Your task to perform on an android device: Show me productivity apps on the Play Store Image 0: 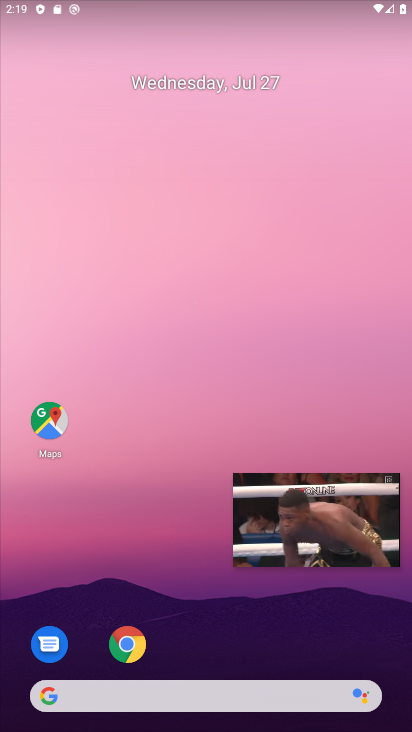
Step 0: click (355, 509)
Your task to perform on an android device: Show me productivity apps on the Play Store Image 1: 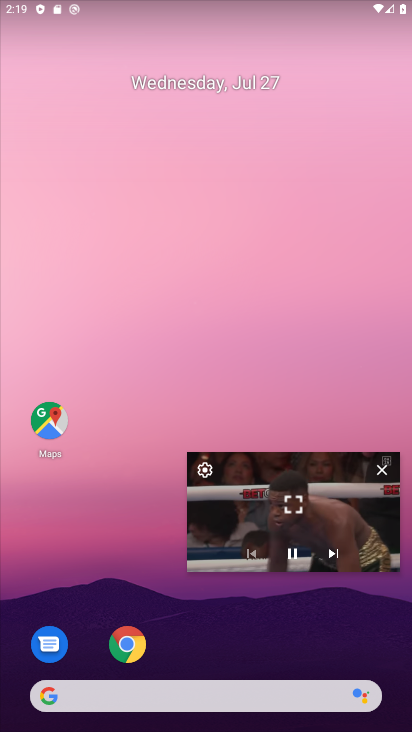
Step 1: click (387, 467)
Your task to perform on an android device: Show me productivity apps on the Play Store Image 2: 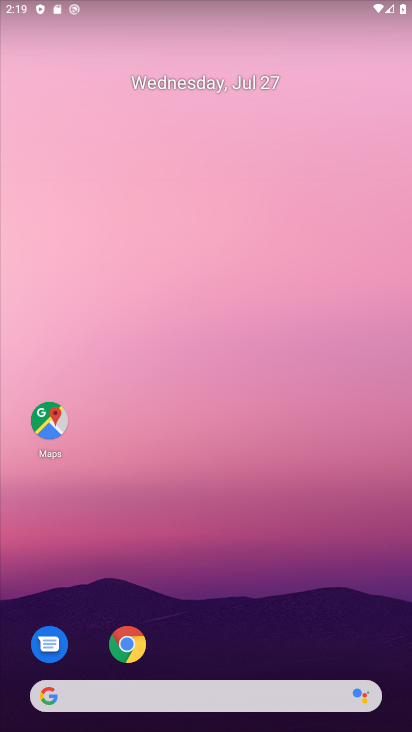
Step 2: drag from (190, 552) to (253, 5)
Your task to perform on an android device: Show me productivity apps on the Play Store Image 3: 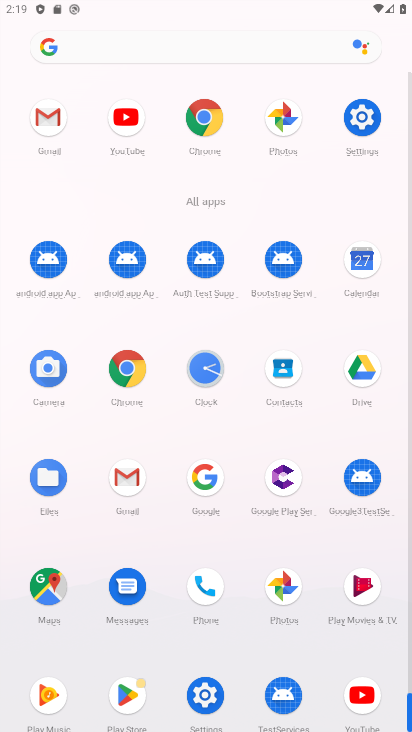
Step 3: click (124, 687)
Your task to perform on an android device: Show me productivity apps on the Play Store Image 4: 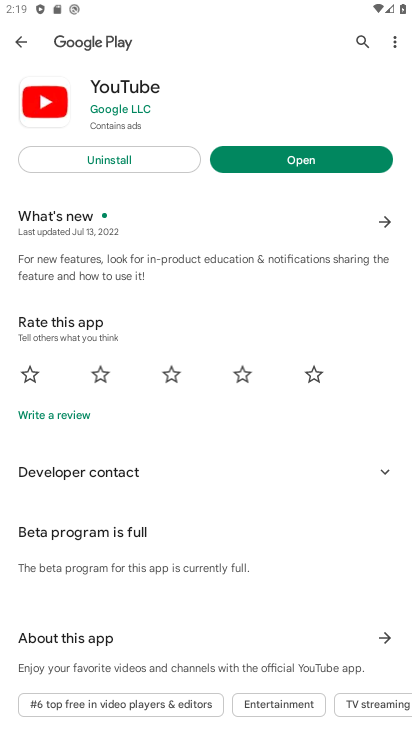
Step 4: click (15, 35)
Your task to perform on an android device: Show me productivity apps on the Play Store Image 5: 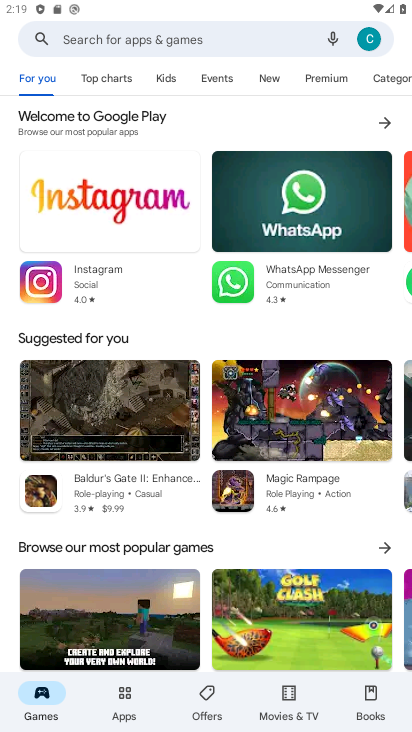
Step 5: click (127, 708)
Your task to perform on an android device: Show me productivity apps on the Play Store Image 6: 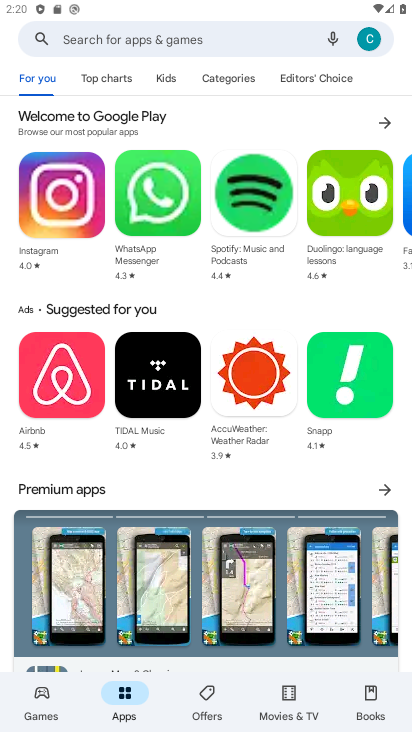
Step 6: click (224, 81)
Your task to perform on an android device: Show me productivity apps on the Play Store Image 7: 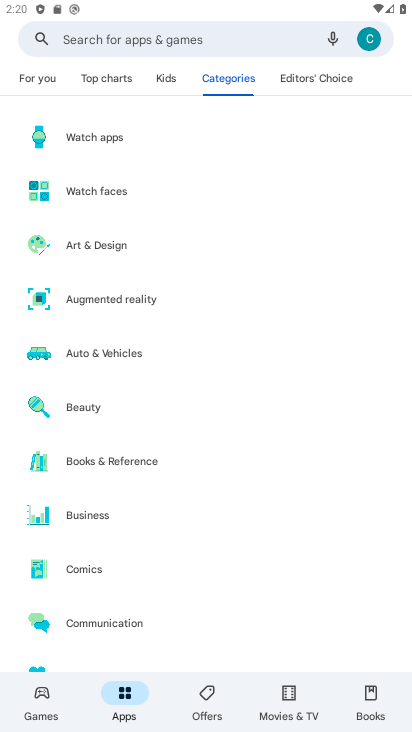
Step 7: drag from (128, 584) to (179, 221)
Your task to perform on an android device: Show me productivity apps on the Play Store Image 8: 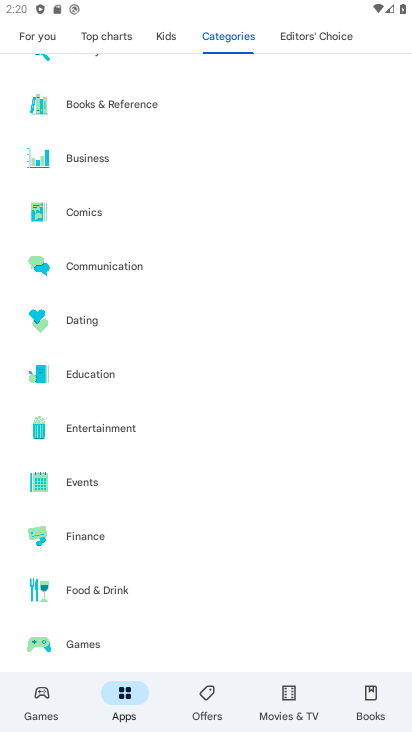
Step 8: drag from (124, 624) to (146, 341)
Your task to perform on an android device: Show me productivity apps on the Play Store Image 9: 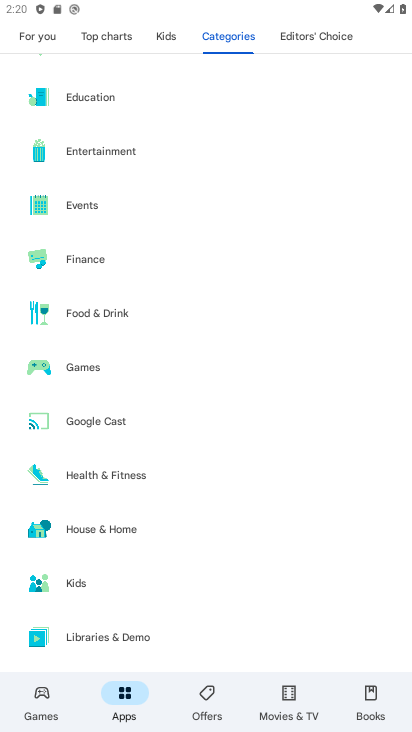
Step 9: drag from (137, 619) to (147, 406)
Your task to perform on an android device: Show me productivity apps on the Play Store Image 10: 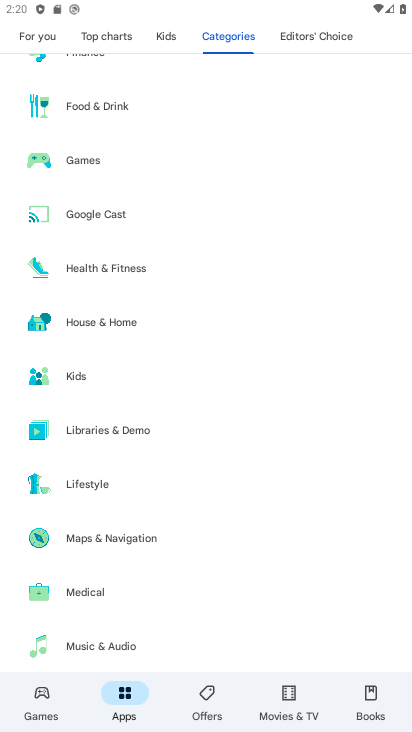
Step 10: drag from (144, 592) to (192, 210)
Your task to perform on an android device: Show me productivity apps on the Play Store Image 11: 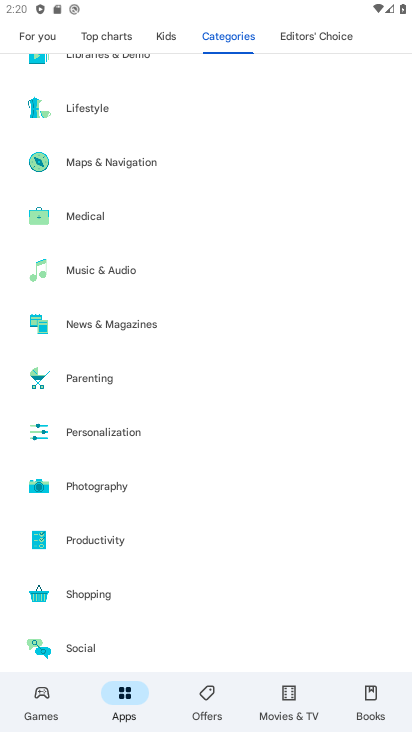
Step 11: click (124, 545)
Your task to perform on an android device: Show me productivity apps on the Play Store Image 12: 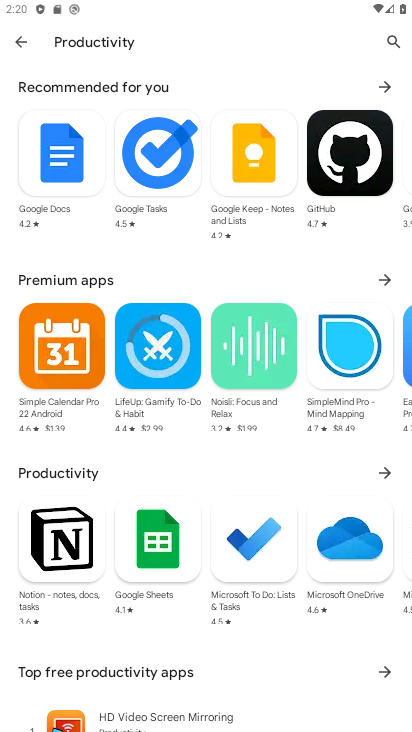
Step 12: task complete